Your task to perform on an android device: check the backup settings in the google photos Image 0: 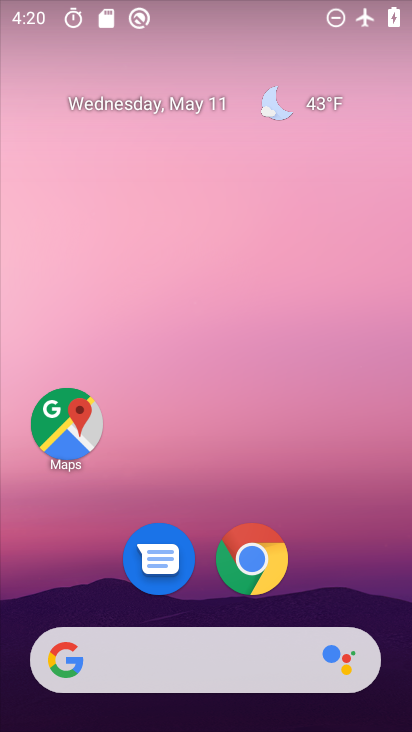
Step 0: drag from (334, 513) to (257, 79)
Your task to perform on an android device: check the backup settings in the google photos Image 1: 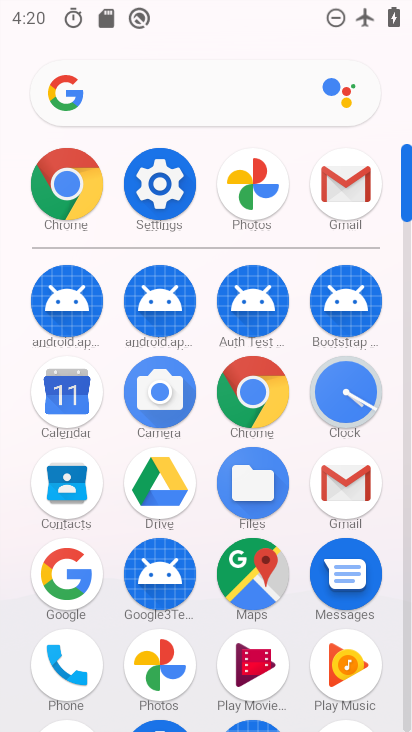
Step 1: click (255, 187)
Your task to perform on an android device: check the backup settings in the google photos Image 2: 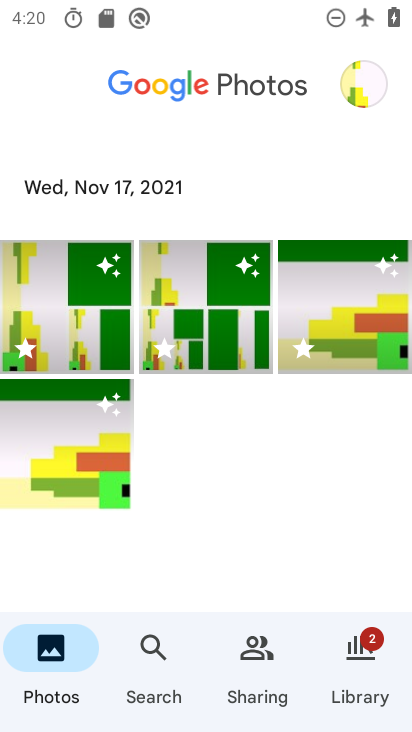
Step 2: click (363, 71)
Your task to perform on an android device: check the backup settings in the google photos Image 3: 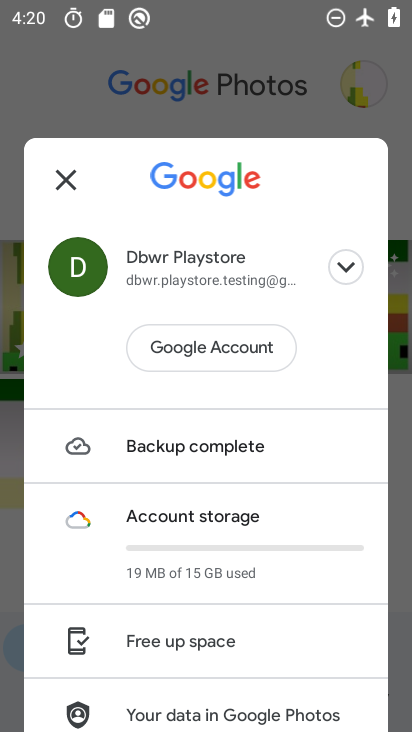
Step 3: click (187, 449)
Your task to perform on an android device: check the backup settings in the google photos Image 4: 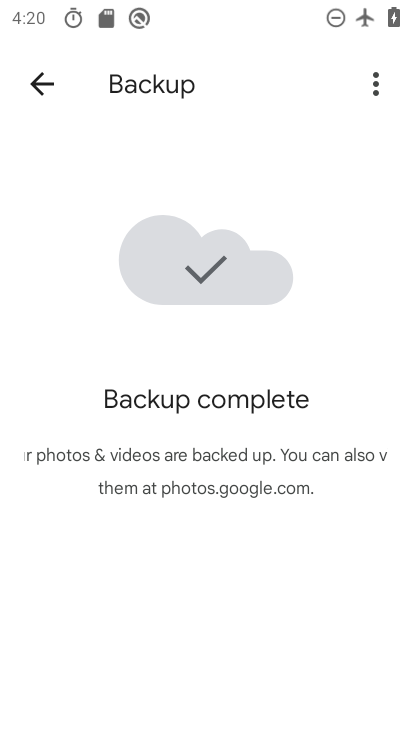
Step 4: click (40, 80)
Your task to perform on an android device: check the backup settings in the google photos Image 5: 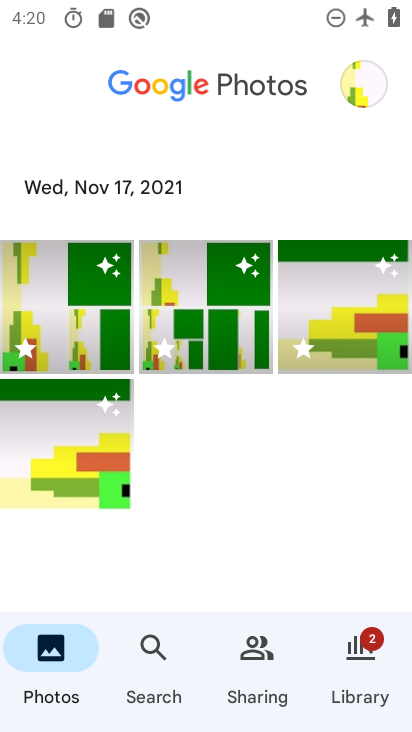
Step 5: drag from (288, 636) to (291, 388)
Your task to perform on an android device: check the backup settings in the google photos Image 6: 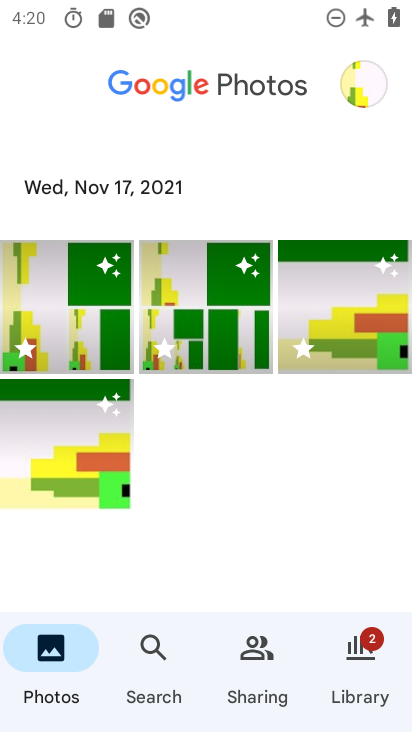
Step 6: click (364, 79)
Your task to perform on an android device: check the backup settings in the google photos Image 7: 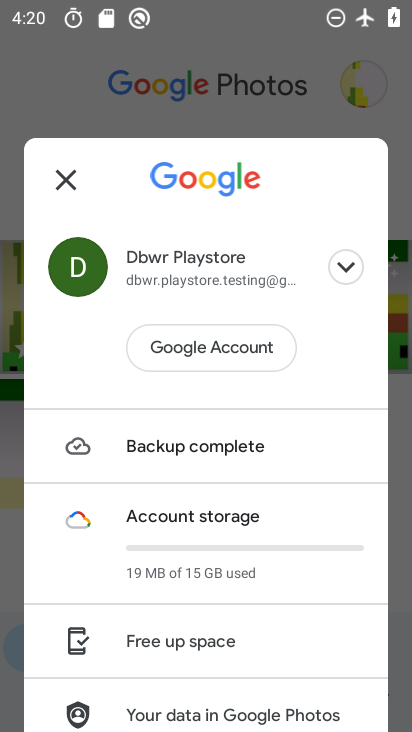
Step 7: drag from (236, 638) to (252, 220)
Your task to perform on an android device: check the backup settings in the google photos Image 8: 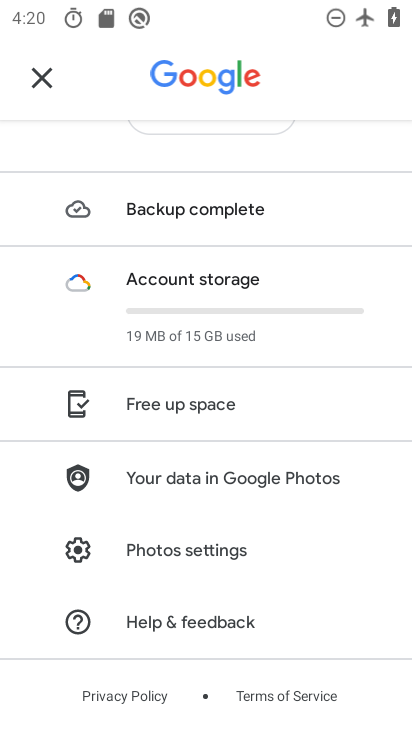
Step 8: click (190, 558)
Your task to perform on an android device: check the backup settings in the google photos Image 9: 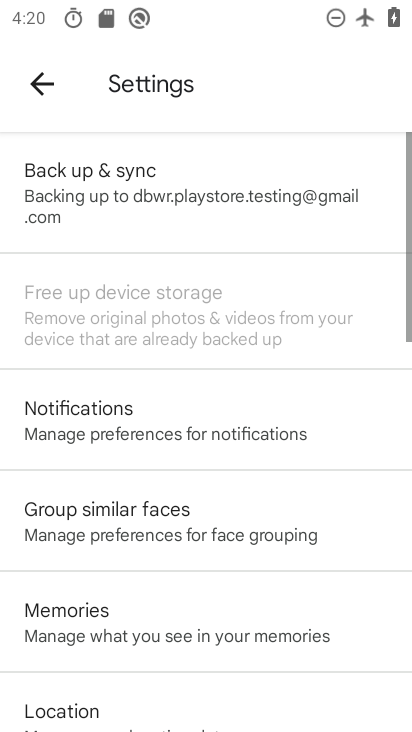
Step 9: click (118, 169)
Your task to perform on an android device: check the backup settings in the google photos Image 10: 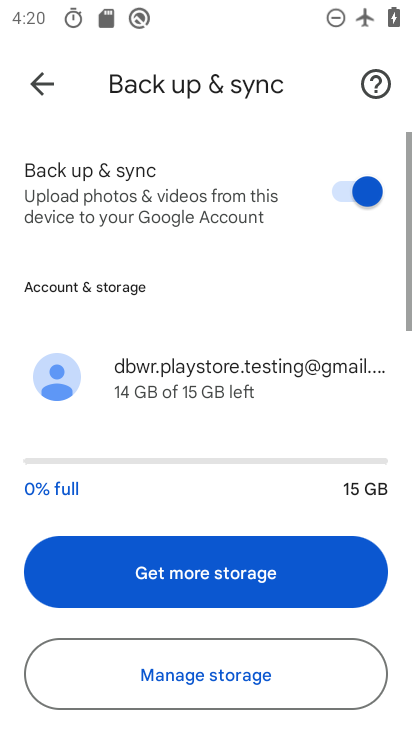
Step 10: task complete